Your task to perform on an android device: toggle data saver in the chrome app Image 0: 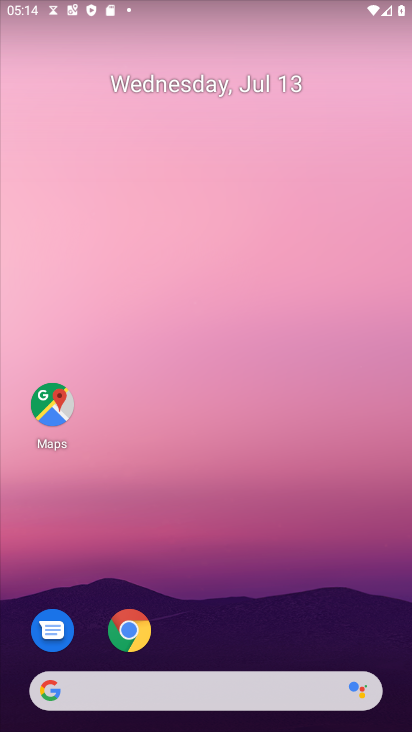
Step 0: drag from (267, 693) to (347, 4)
Your task to perform on an android device: toggle data saver in the chrome app Image 1: 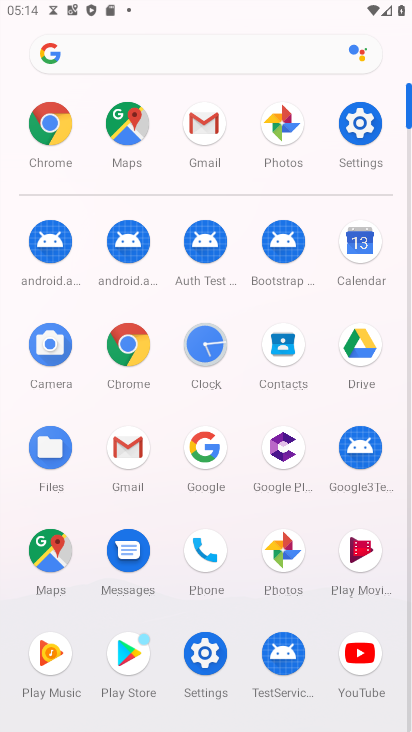
Step 1: click (130, 360)
Your task to perform on an android device: toggle data saver in the chrome app Image 2: 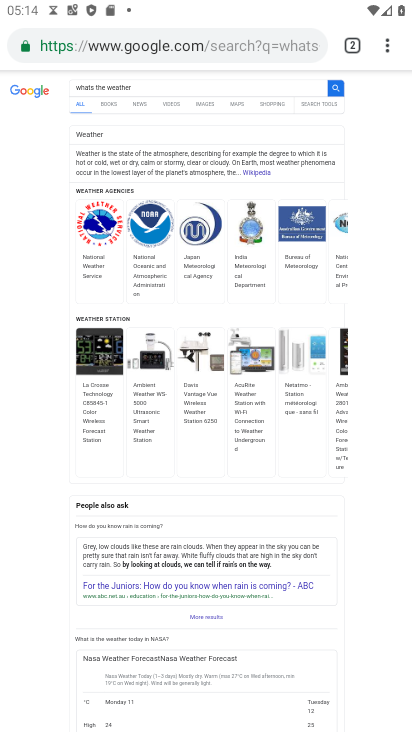
Step 2: drag from (379, 41) to (245, 548)
Your task to perform on an android device: toggle data saver in the chrome app Image 3: 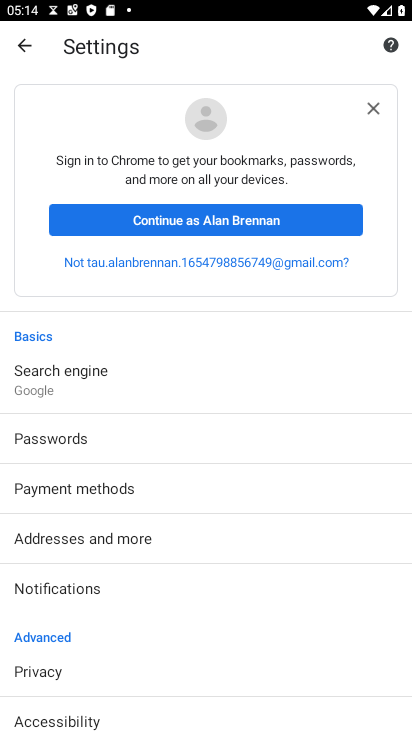
Step 3: drag from (54, 660) to (141, 389)
Your task to perform on an android device: toggle data saver in the chrome app Image 4: 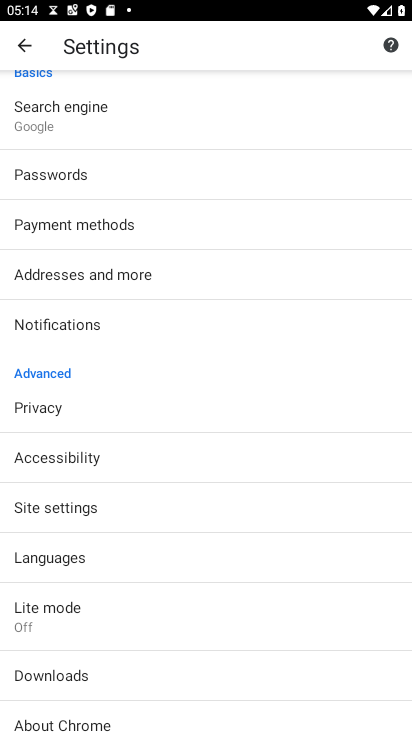
Step 4: click (62, 627)
Your task to perform on an android device: toggle data saver in the chrome app Image 5: 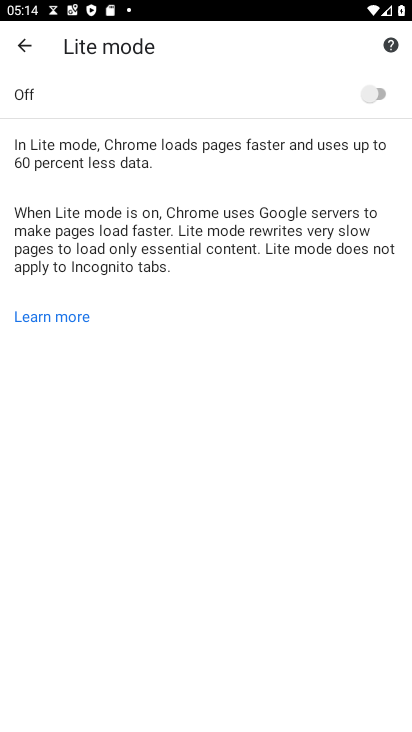
Step 5: click (378, 94)
Your task to perform on an android device: toggle data saver in the chrome app Image 6: 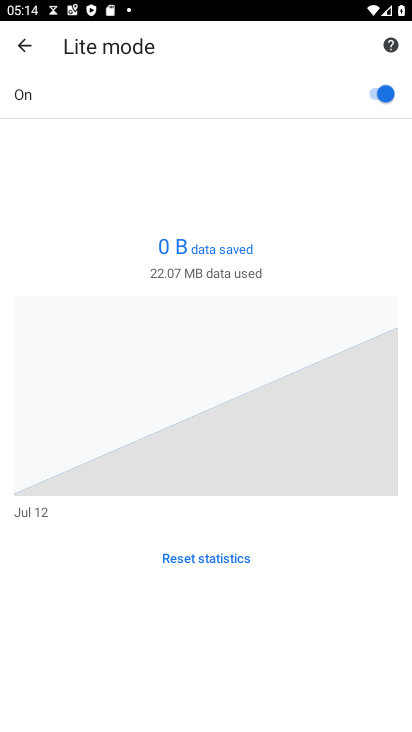
Step 6: task complete